Your task to perform on an android device: Go to settings Image 0: 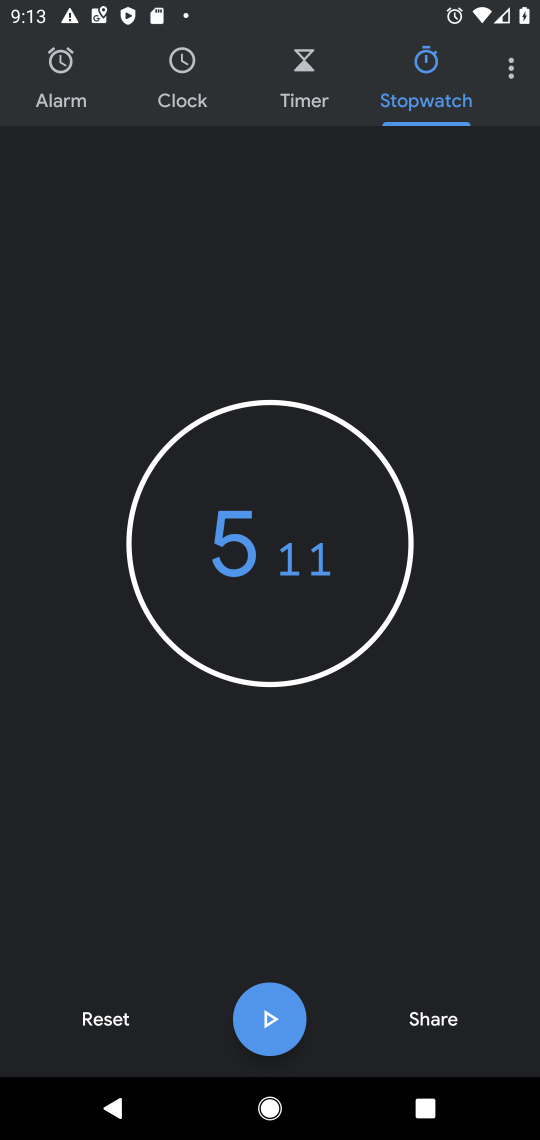
Step 0: press home button
Your task to perform on an android device: Go to settings Image 1: 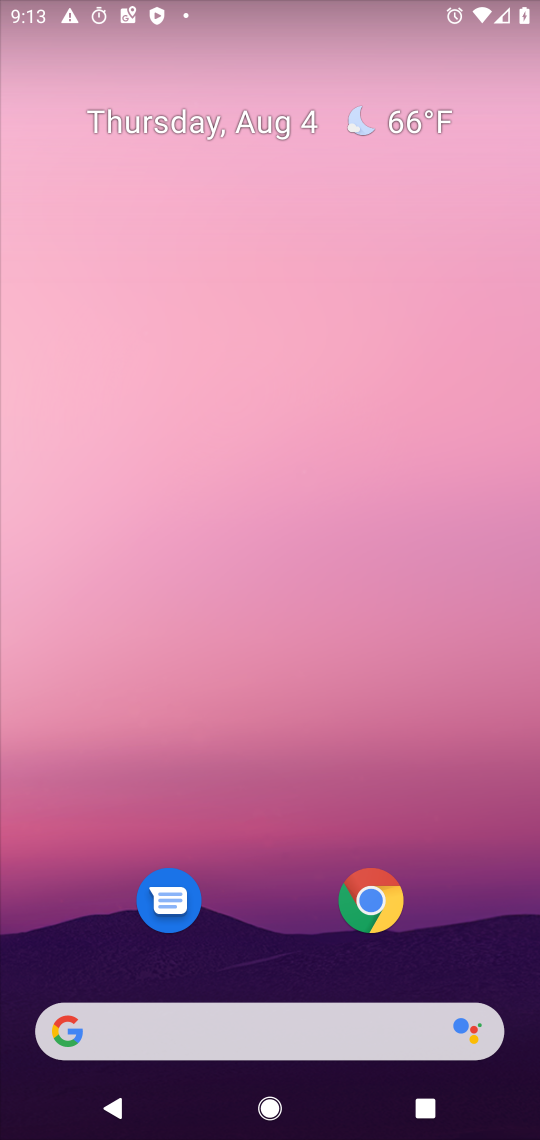
Step 1: drag from (236, 1047) to (246, 365)
Your task to perform on an android device: Go to settings Image 2: 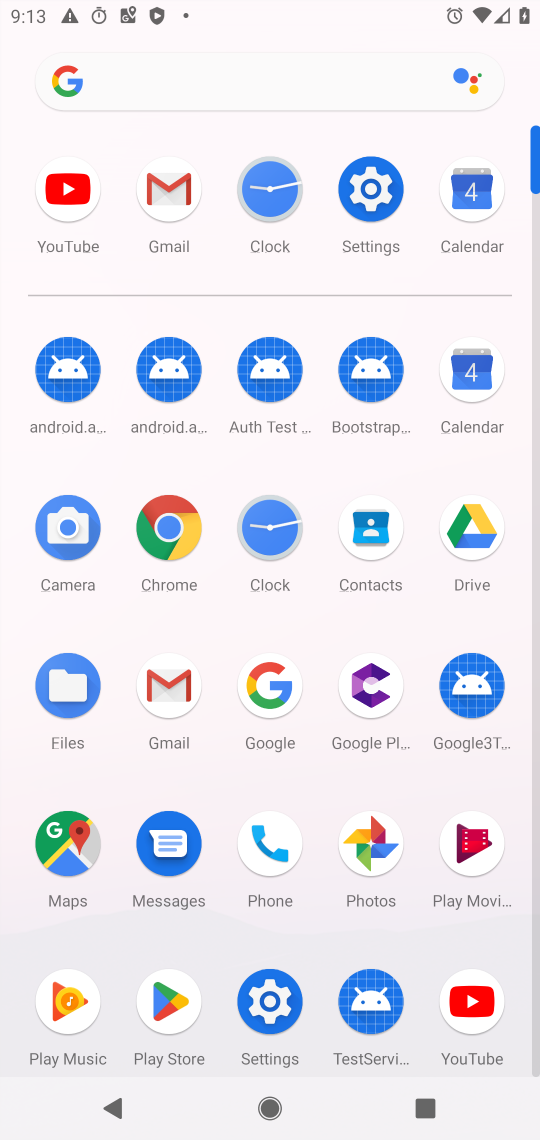
Step 2: click (368, 188)
Your task to perform on an android device: Go to settings Image 3: 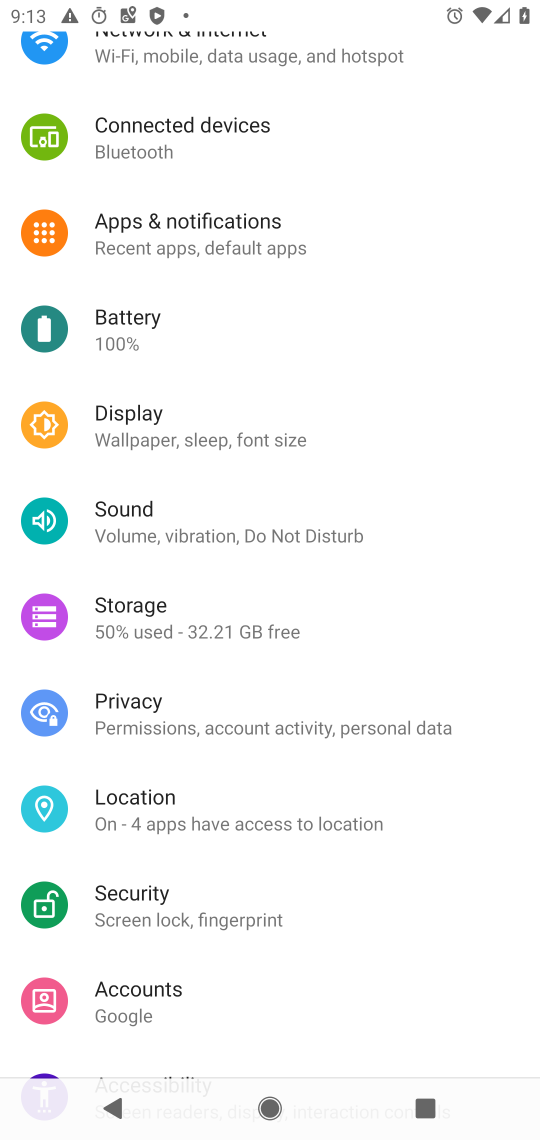
Step 3: task complete